Your task to perform on an android device: Open the stopwatch Image 0: 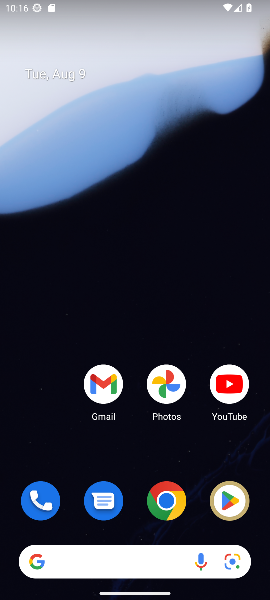
Step 0: drag from (131, 527) to (160, 85)
Your task to perform on an android device: Open the stopwatch Image 1: 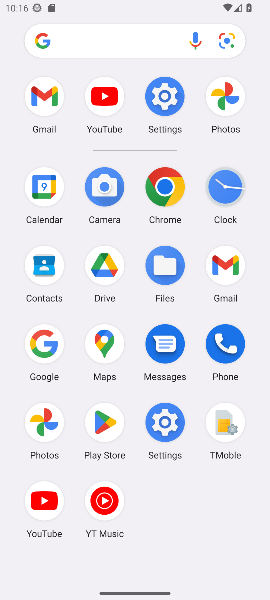
Step 1: click (220, 189)
Your task to perform on an android device: Open the stopwatch Image 2: 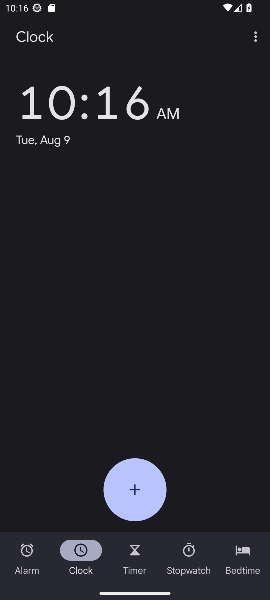
Step 2: click (188, 557)
Your task to perform on an android device: Open the stopwatch Image 3: 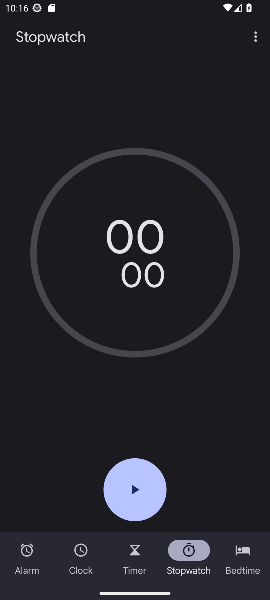
Step 3: task complete